Your task to perform on an android device: turn on wifi Image 0: 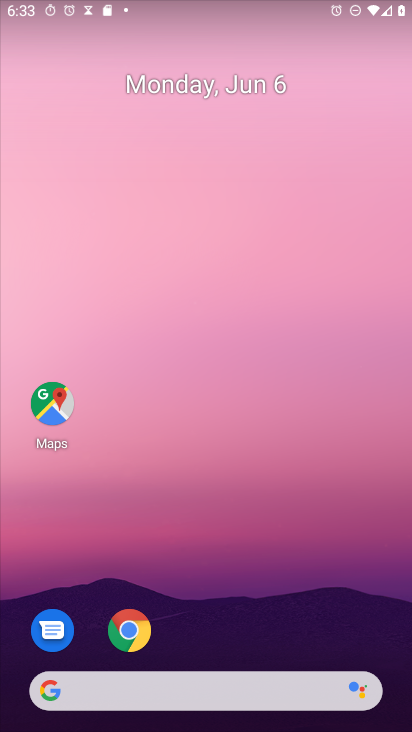
Step 0: drag from (251, 386) to (188, 20)
Your task to perform on an android device: turn on wifi Image 1: 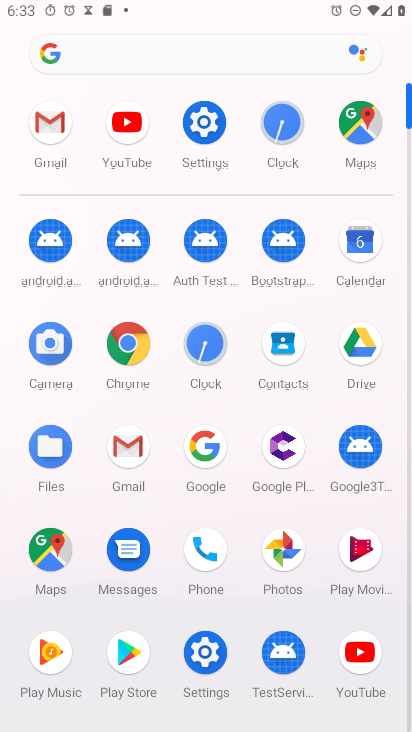
Step 1: click (210, 113)
Your task to perform on an android device: turn on wifi Image 2: 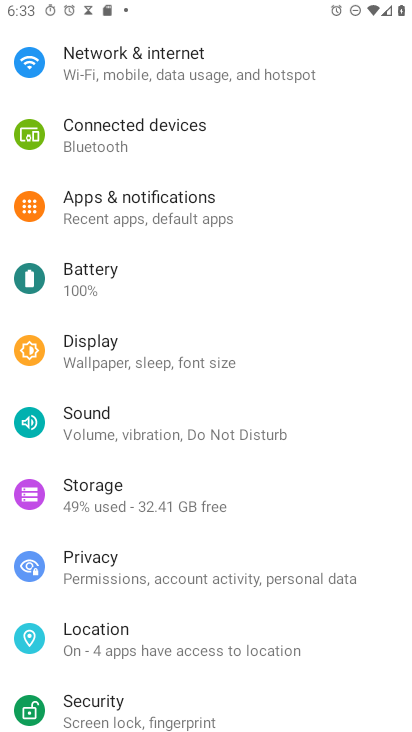
Step 2: click (190, 83)
Your task to perform on an android device: turn on wifi Image 3: 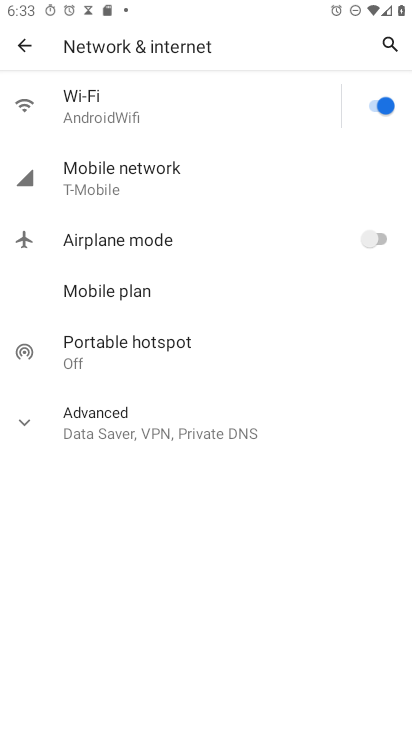
Step 3: task complete